Your task to perform on an android device: Check the weather Image 0: 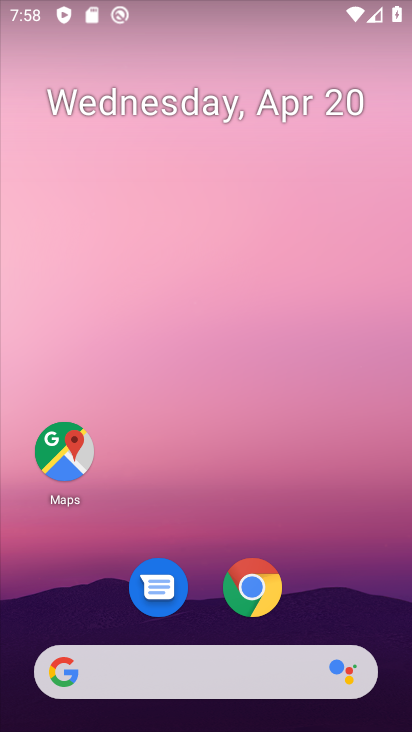
Step 0: click (245, 672)
Your task to perform on an android device: Check the weather Image 1: 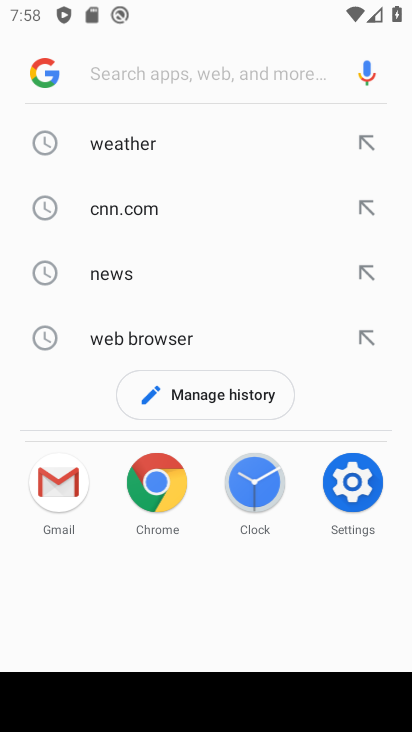
Step 1: click (145, 143)
Your task to perform on an android device: Check the weather Image 2: 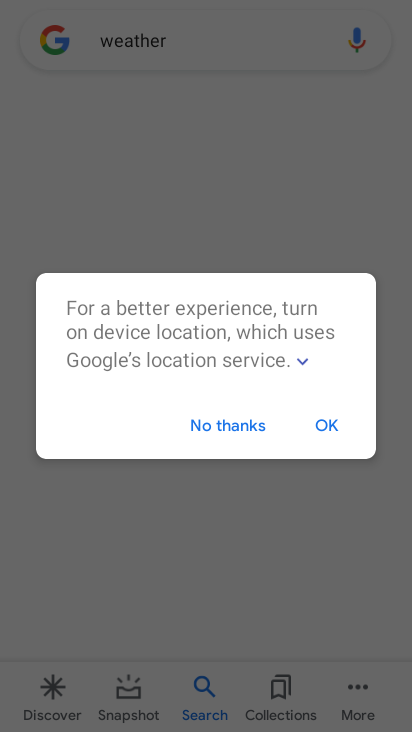
Step 2: click (206, 430)
Your task to perform on an android device: Check the weather Image 3: 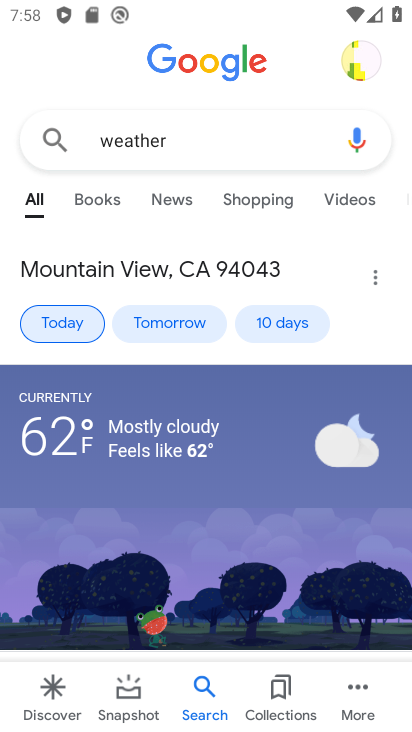
Step 3: task complete